Your task to perform on an android device: move a message to another label in the gmail app Image 0: 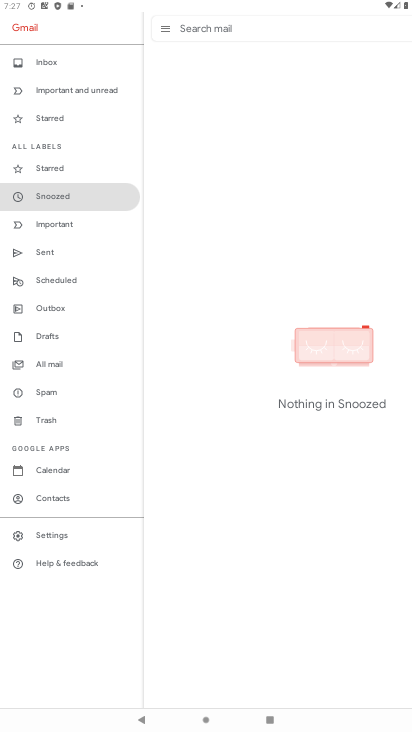
Step 0: press home button
Your task to perform on an android device: move a message to another label in the gmail app Image 1: 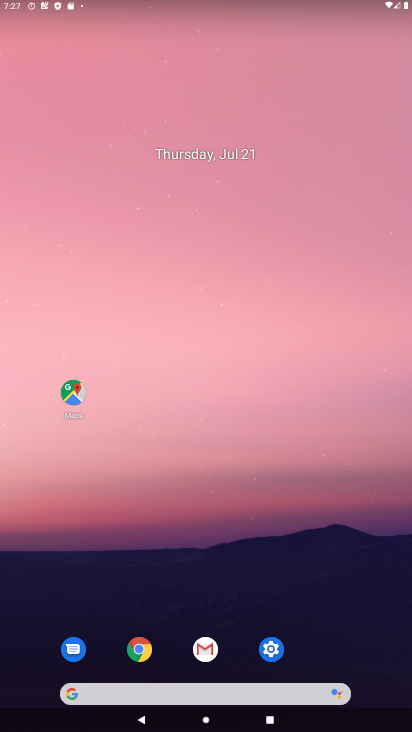
Step 1: click (204, 648)
Your task to perform on an android device: move a message to another label in the gmail app Image 2: 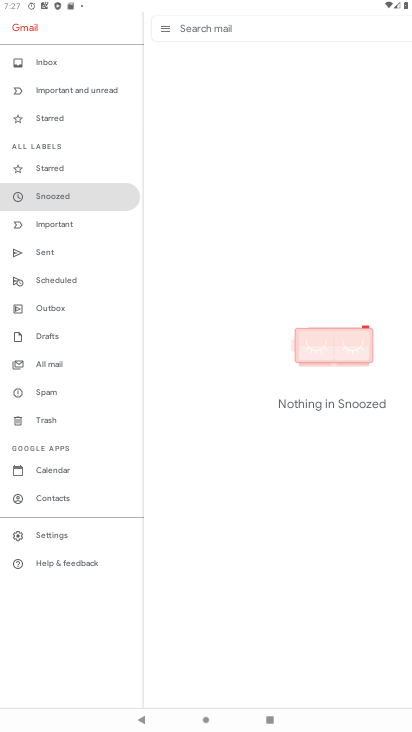
Step 2: click (56, 535)
Your task to perform on an android device: move a message to another label in the gmail app Image 3: 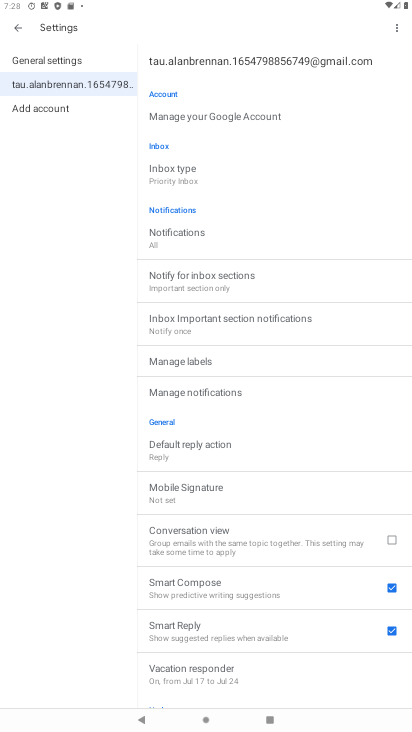
Step 3: click (196, 370)
Your task to perform on an android device: move a message to another label in the gmail app Image 4: 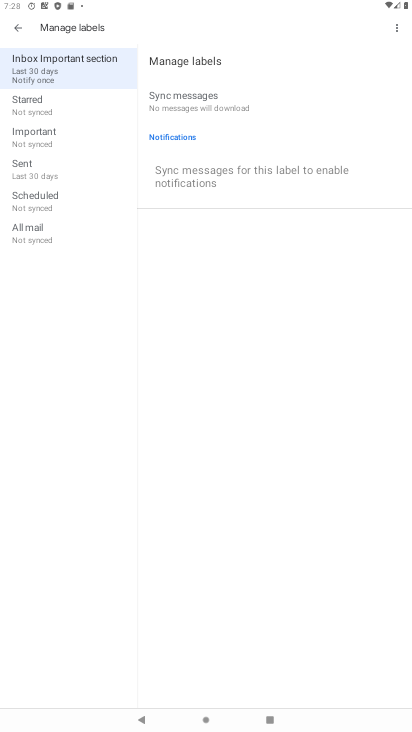
Step 4: task complete